Your task to perform on an android device: Show me recent news Image 0: 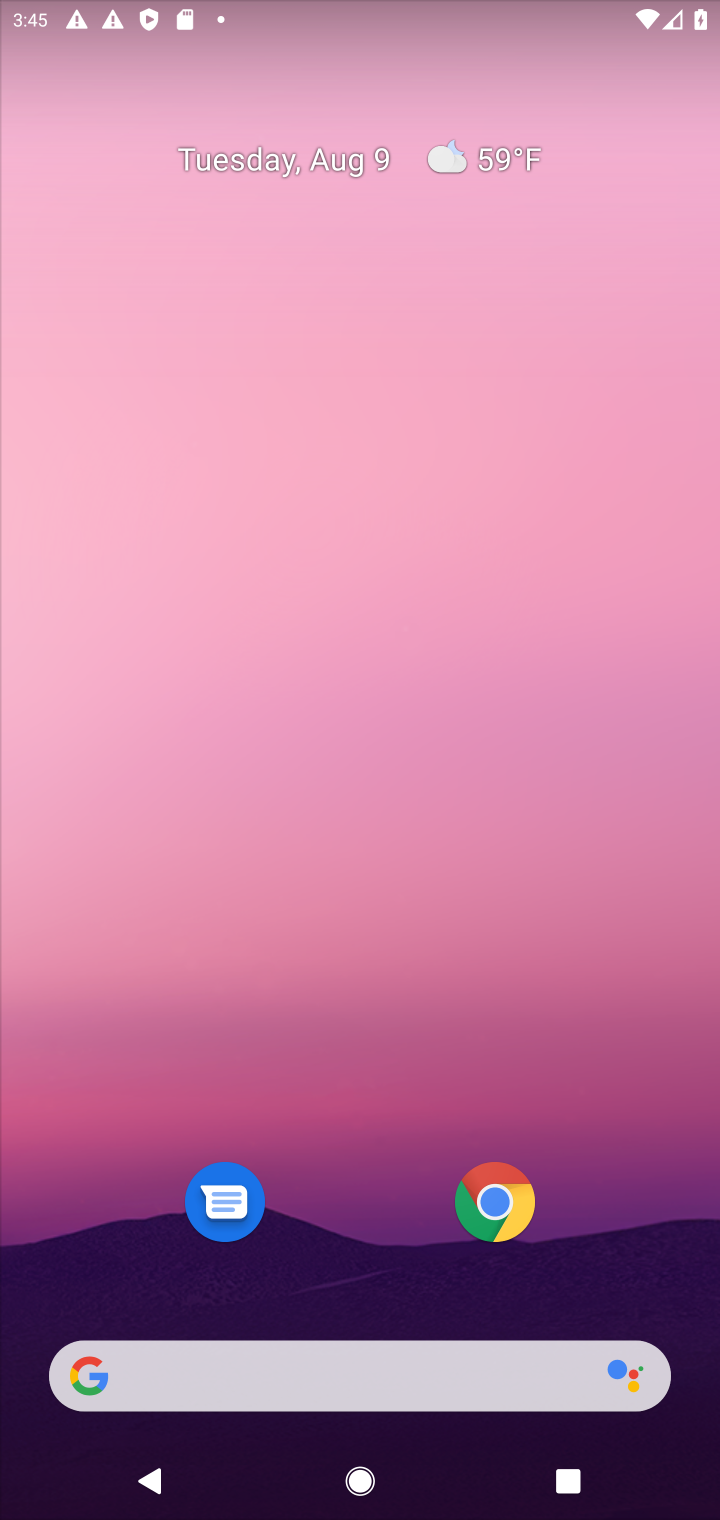
Step 0: drag from (20, 665) to (705, 756)
Your task to perform on an android device: Show me recent news Image 1: 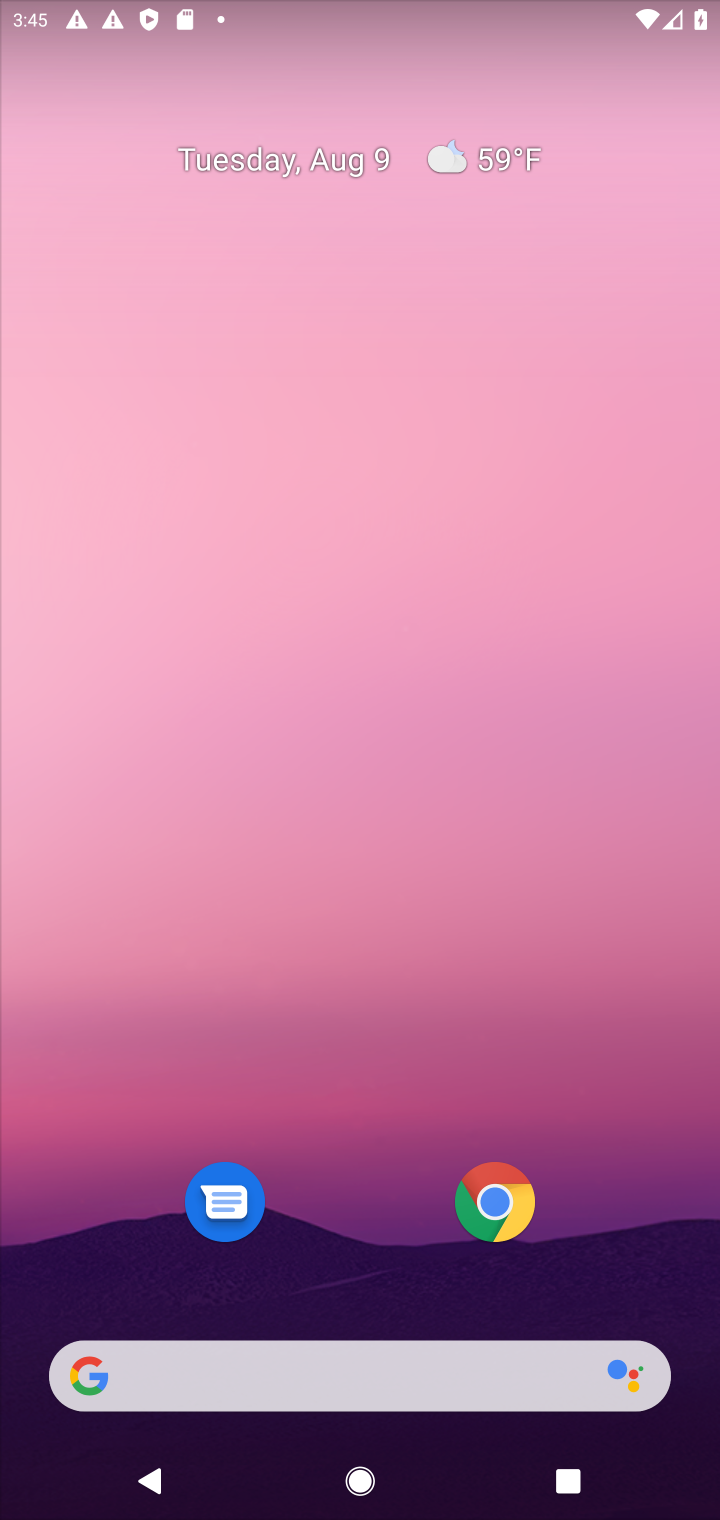
Step 1: task complete